Your task to perform on an android device: change the clock display to digital Image 0: 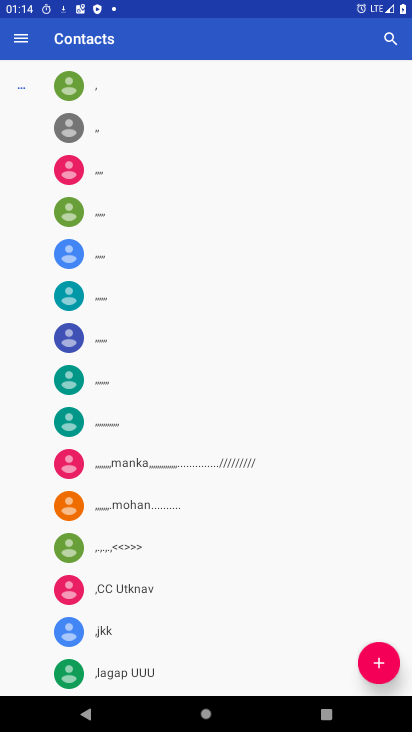
Step 0: press home button
Your task to perform on an android device: change the clock display to digital Image 1: 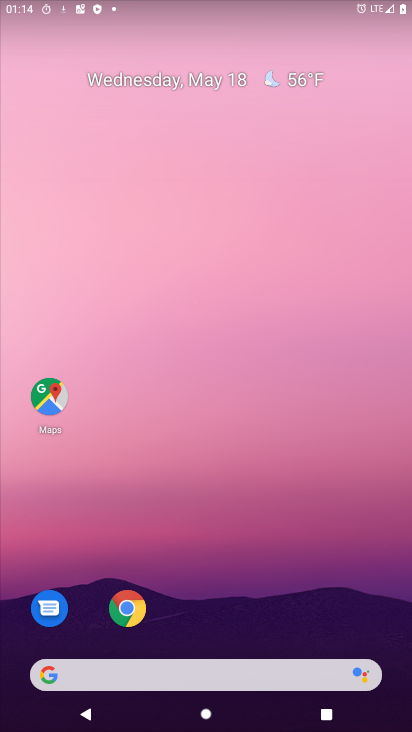
Step 1: drag from (244, 713) to (302, 218)
Your task to perform on an android device: change the clock display to digital Image 2: 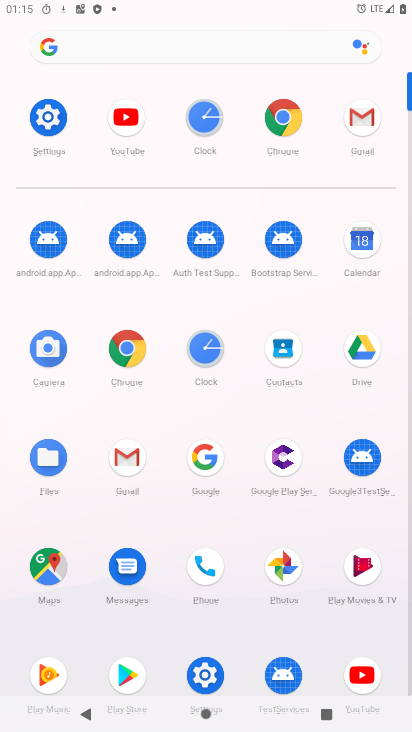
Step 2: click (210, 356)
Your task to perform on an android device: change the clock display to digital Image 3: 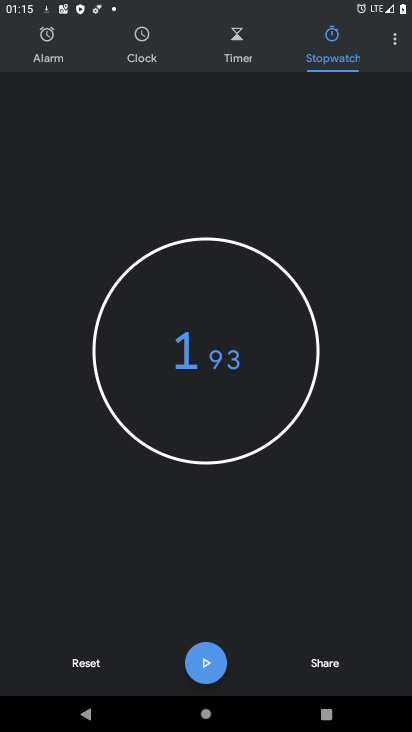
Step 3: click (397, 53)
Your task to perform on an android device: change the clock display to digital Image 4: 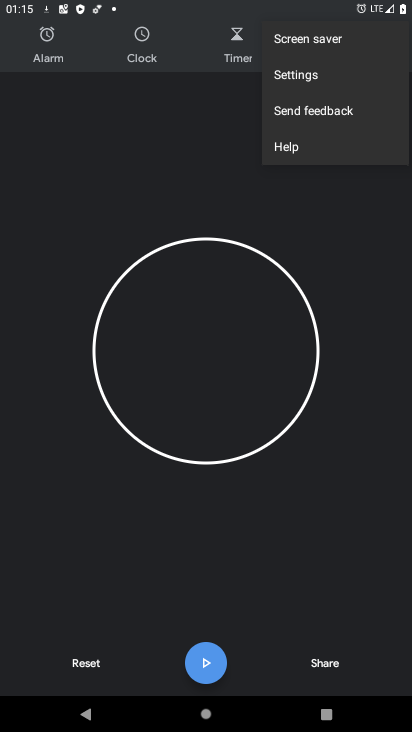
Step 4: click (323, 72)
Your task to perform on an android device: change the clock display to digital Image 5: 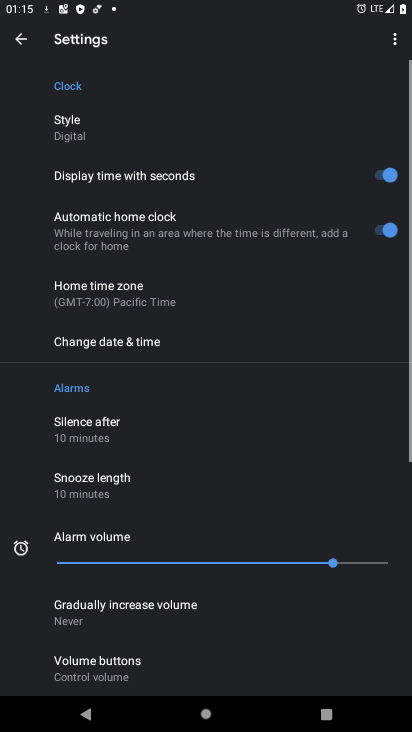
Step 5: click (140, 133)
Your task to perform on an android device: change the clock display to digital Image 6: 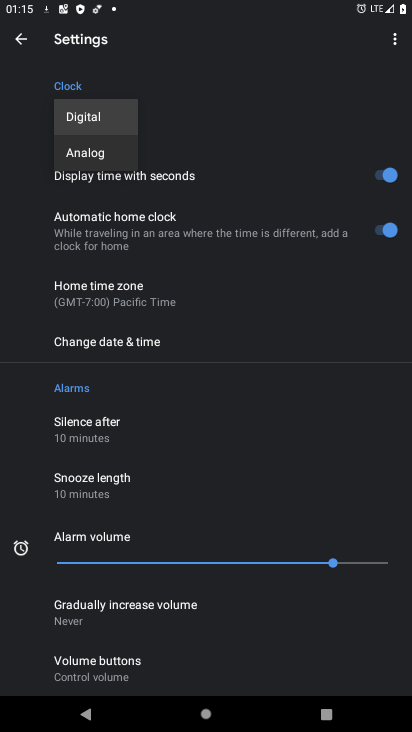
Step 6: task complete